Your task to perform on an android device: Open display settings Image 0: 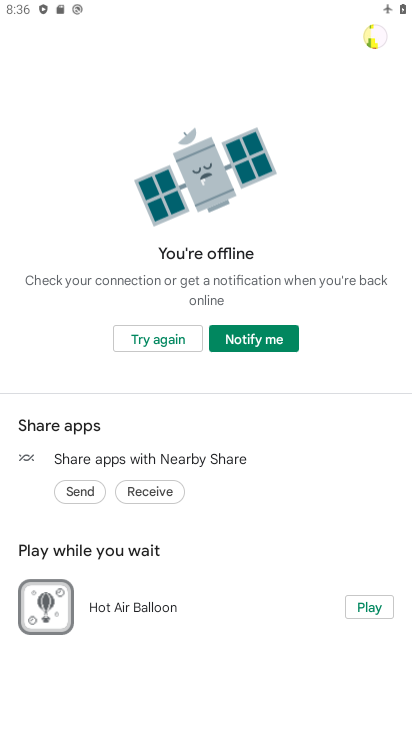
Step 0: press home button
Your task to perform on an android device: Open display settings Image 1: 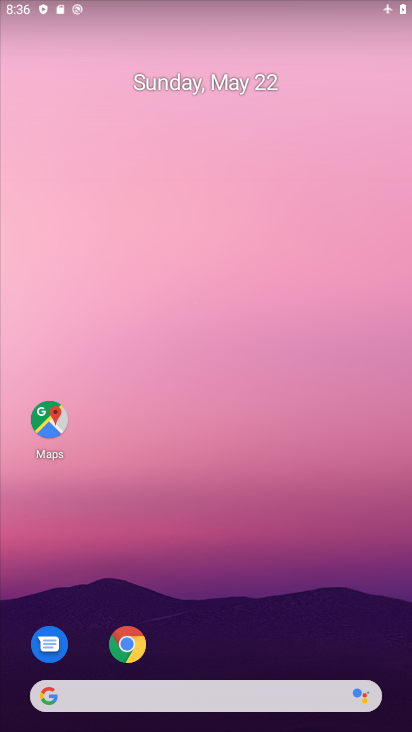
Step 1: drag from (206, 697) to (166, 134)
Your task to perform on an android device: Open display settings Image 2: 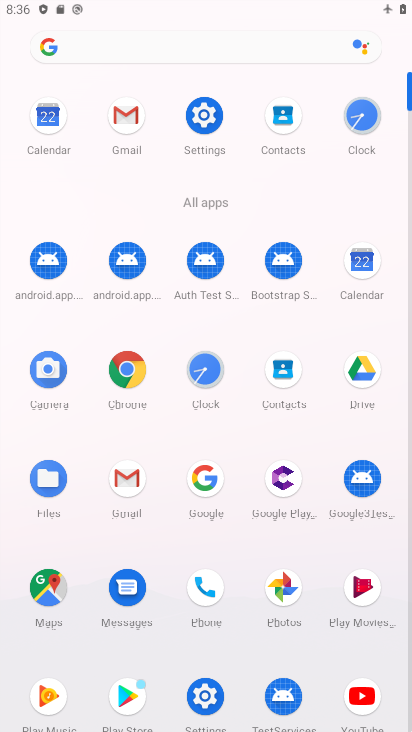
Step 2: click (209, 127)
Your task to perform on an android device: Open display settings Image 3: 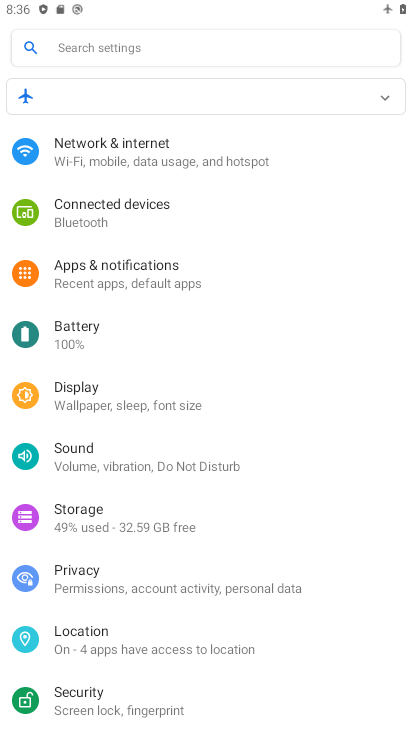
Step 3: click (104, 385)
Your task to perform on an android device: Open display settings Image 4: 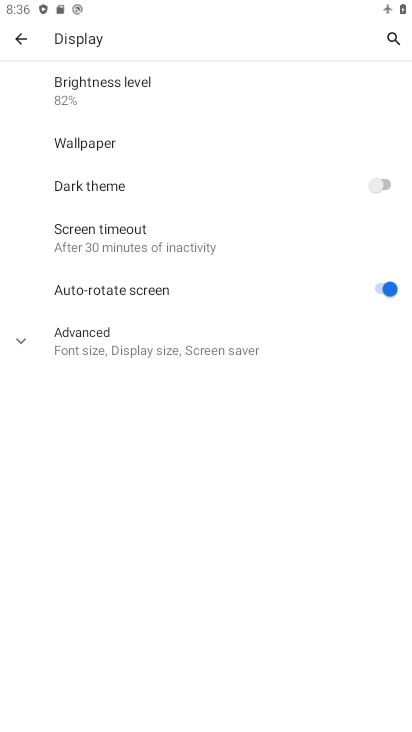
Step 4: task complete